Your task to perform on an android device: turn off sleep mode Image 0: 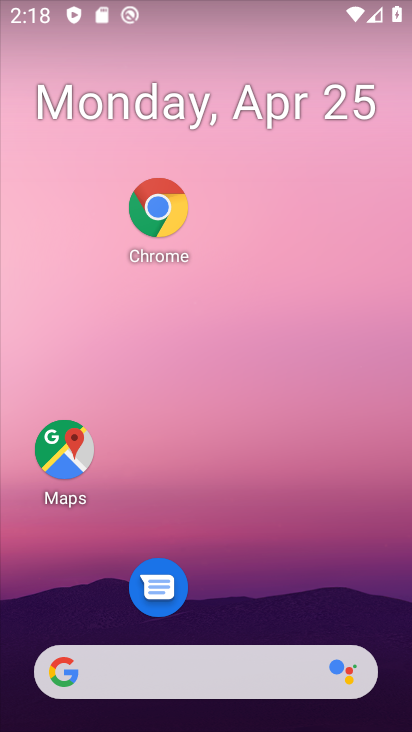
Step 0: drag from (294, 597) to (283, 160)
Your task to perform on an android device: turn off sleep mode Image 1: 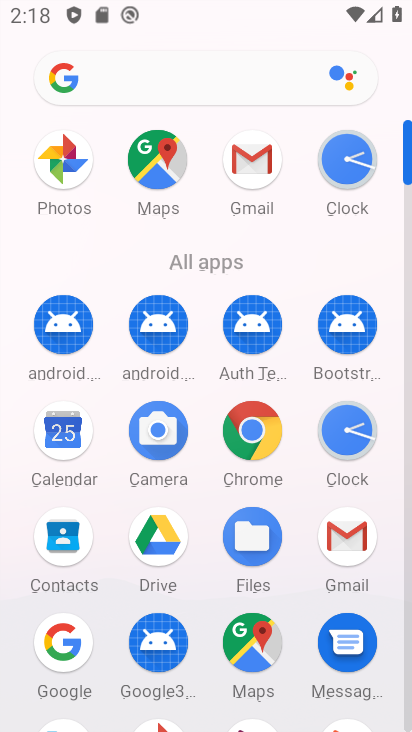
Step 1: drag from (406, 144) to (397, 607)
Your task to perform on an android device: turn off sleep mode Image 2: 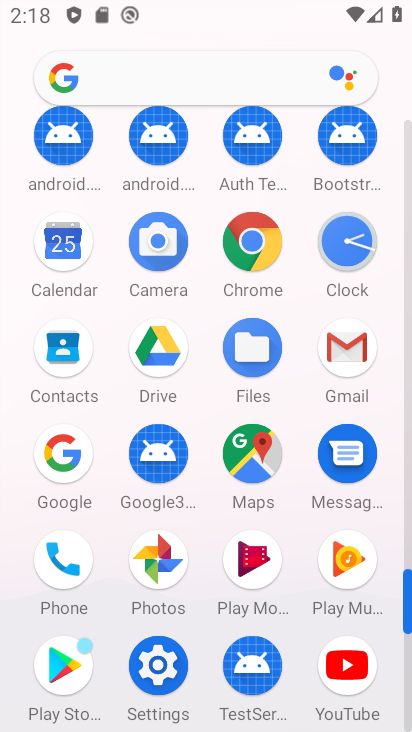
Step 2: click (161, 671)
Your task to perform on an android device: turn off sleep mode Image 3: 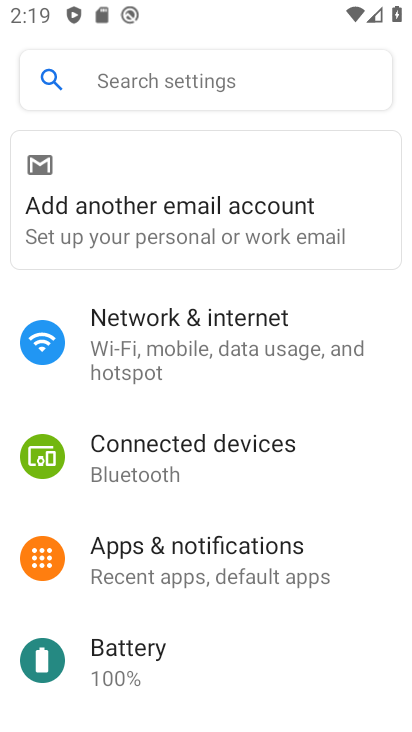
Step 3: drag from (230, 599) to (247, 219)
Your task to perform on an android device: turn off sleep mode Image 4: 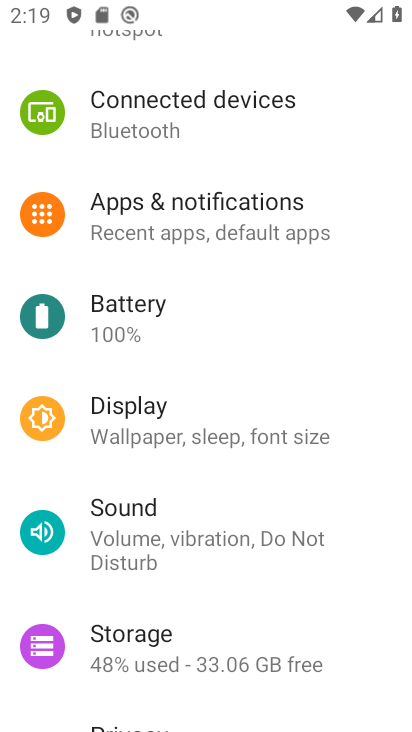
Step 4: click (183, 415)
Your task to perform on an android device: turn off sleep mode Image 5: 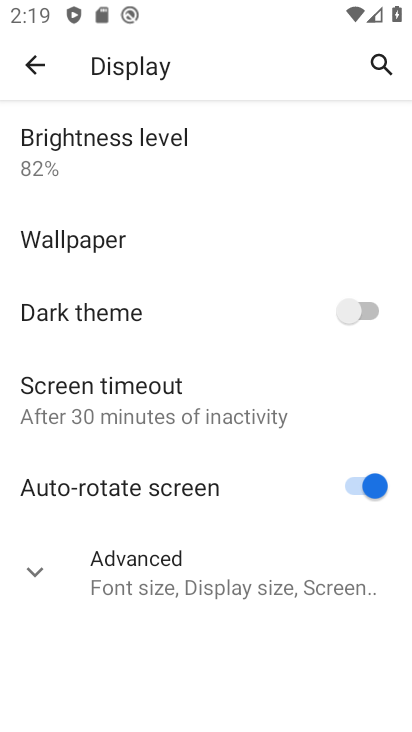
Step 5: task complete